Your task to perform on an android device: open a bookmark in the chrome app Image 0: 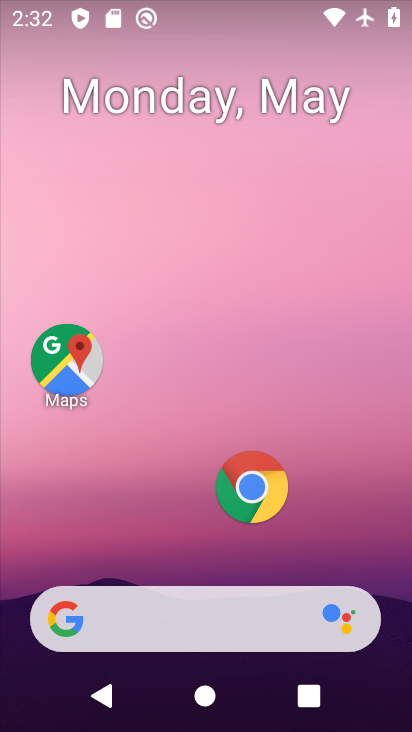
Step 0: click (242, 482)
Your task to perform on an android device: open a bookmark in the chrome app Image 1: 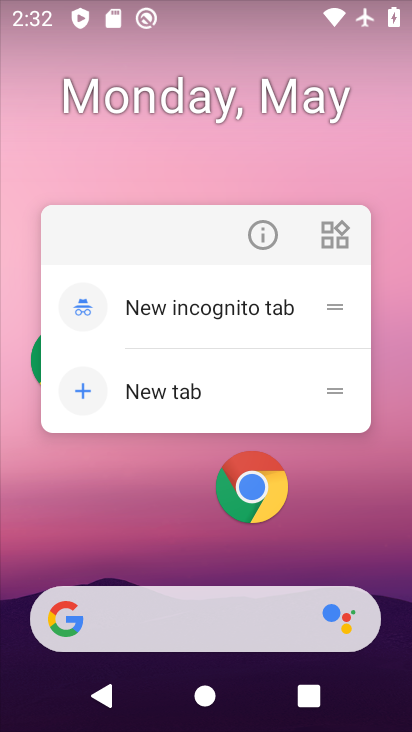
Step 1: click (247, 462)
Your task to perform on an android device: open a bookmark in the chrome app Image 2: 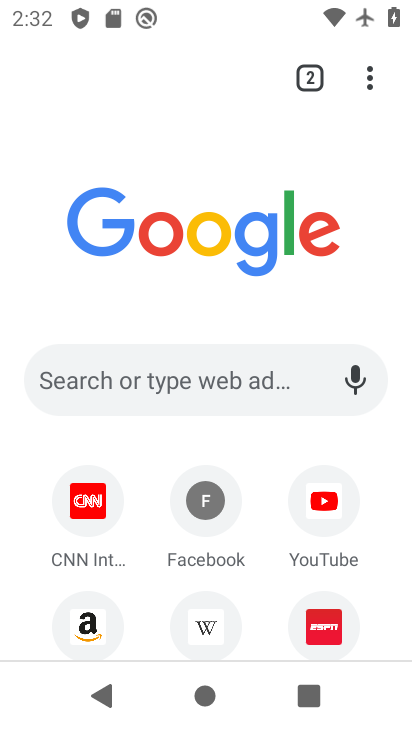
Step 2: click (378, 85)
Your task to perform on an android device: open a bookmark in the chrome app Image 3: 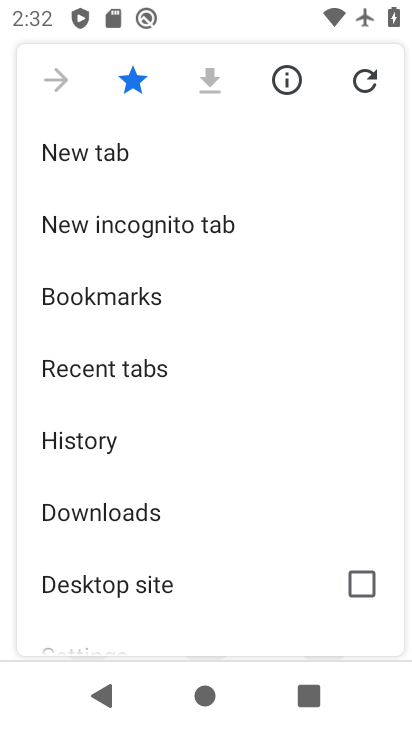
Step 3: click (89, 297)
Your task to perform on an android device: open a bookmark in the chrome app Image 4: 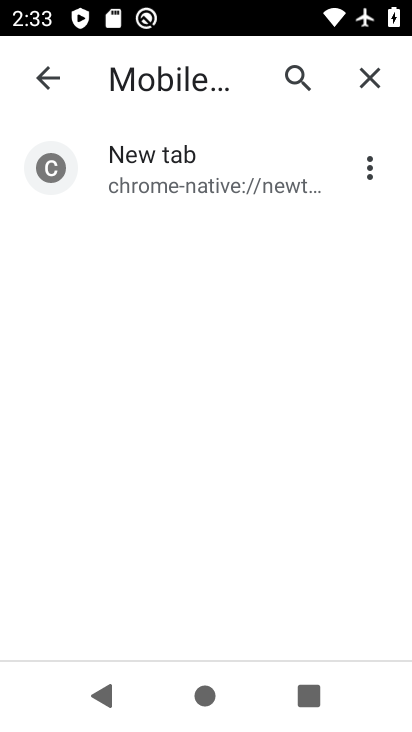
Step 4: click (187, 155)
Your task to perform on an android device: open a bookmark in the chrome app Image 5: 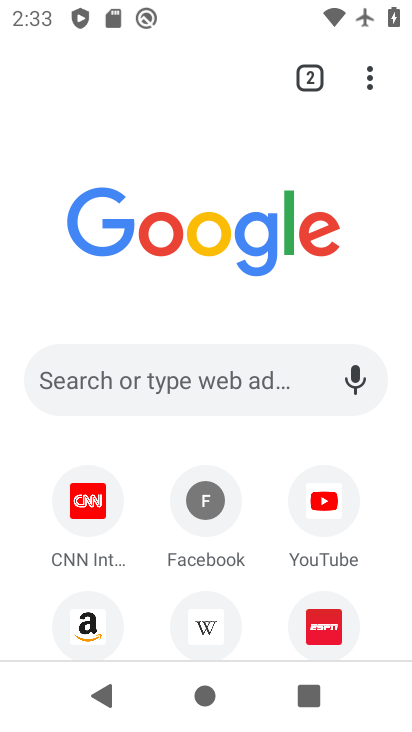
Step 5: task complete